Your task to perform on an android device: clear all cookies in the chrome app Image 0: 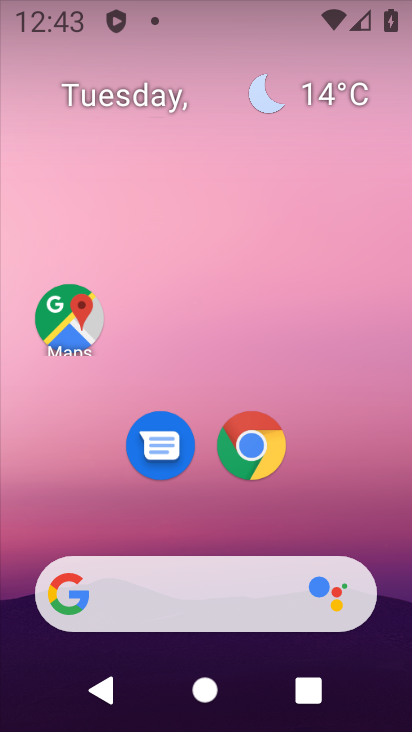
Step 0: drag from (368, 529) to (272, 29)
Your task to perform on an android device: clear all cookies in the chrome app Image 1: 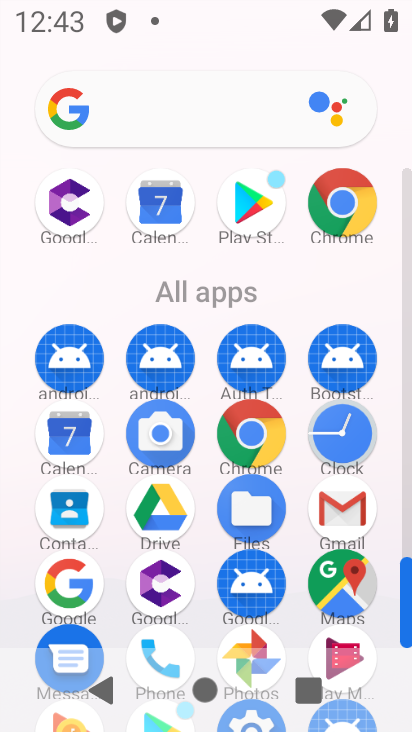
Step 1: drag from (15, 578) to (7, 264)
Your task to perform on an android device: clear all cookies in the chrome app Image 2: 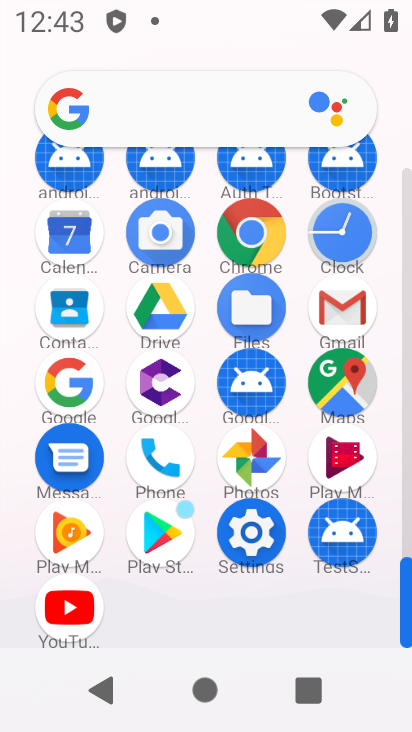
Step 2: click (251, 223)
Your task to perform on an android device: clear all cookies in the chrome app Image 3: 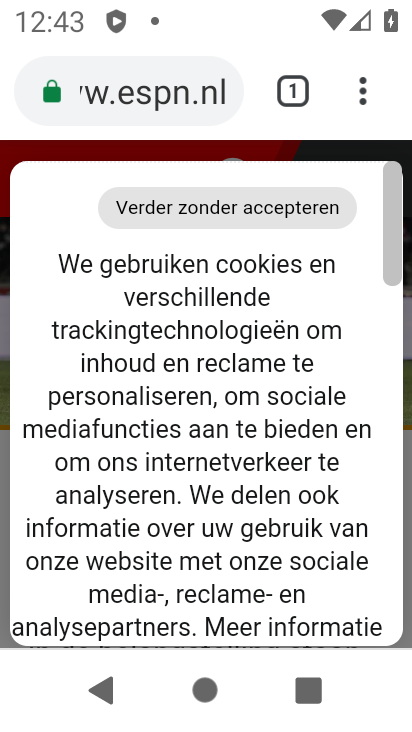
Step 3: drag from (360, 92) to (195, 506)
Your task to perform on an android device: clear all cookies in the chrome app Image 4: 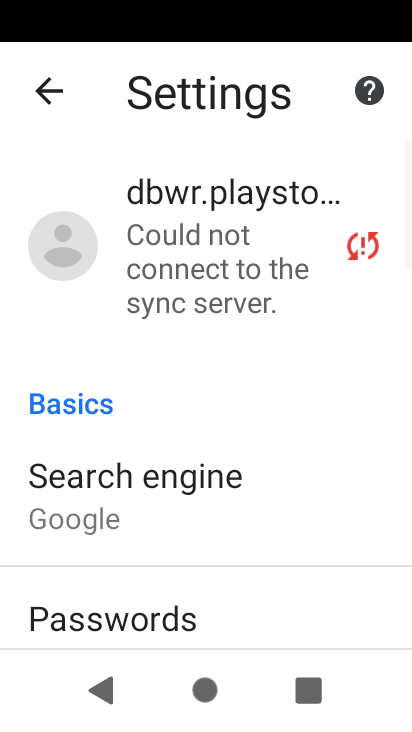
Step 4: drag from (227, 551) to (245, 194)
Your task to perform on an android device: clear all cookies in the chrome app Image 5: 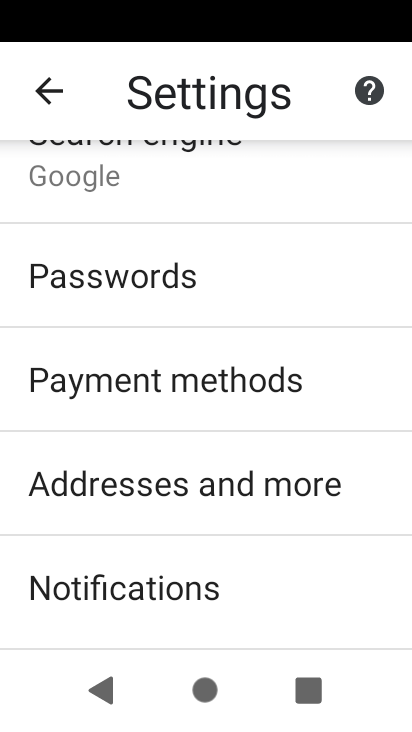
Step 5: drag from (186, 616) to (230, 198)
Your task to perform on an android device: clear all cookies in the chrome app Image 6: 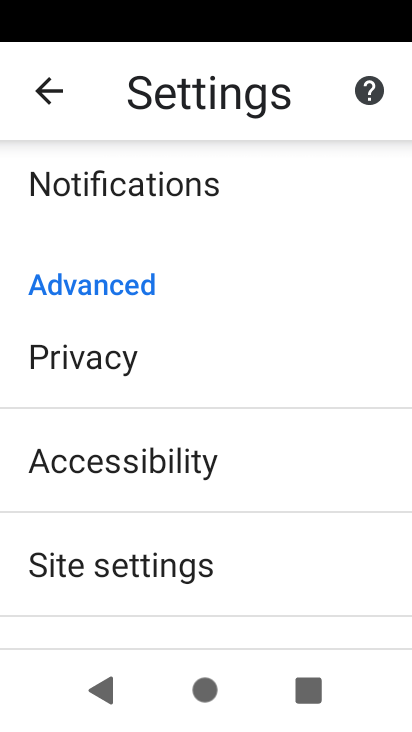
Step 6: click (176, 362)
Your task to perform on an android device: clear all cookies in the chrome app Image 7: 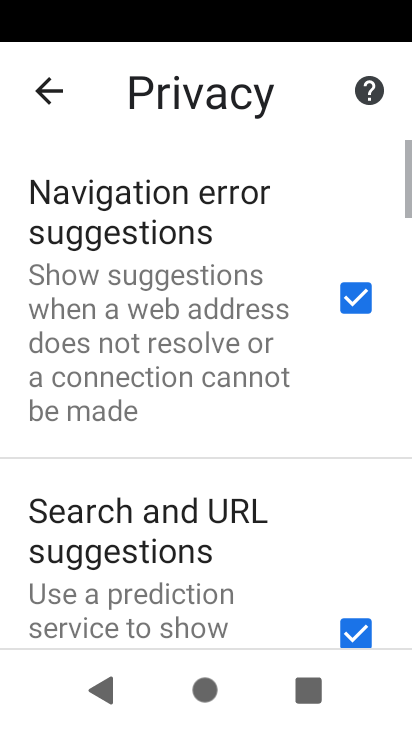
Step 7: drag from (184, 583) to (218, 153)
Your task to perform on an android device: clear all cookies in the chrome app Image 8: 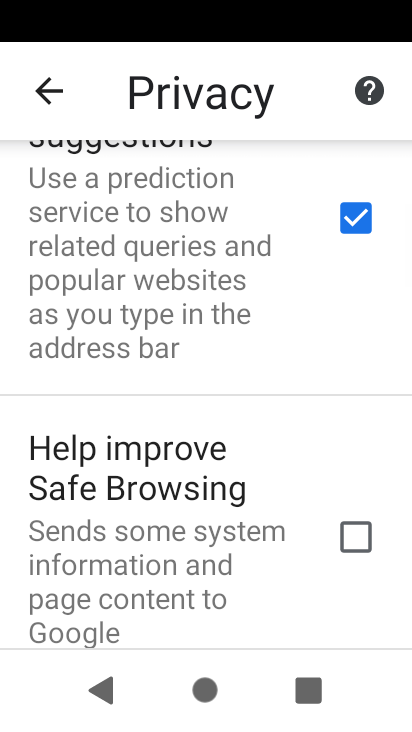
Step 8: drag from (225, 530) to (222, 178)
Your task to perform on an android device: clear all cookies in the chrome app Image 9: 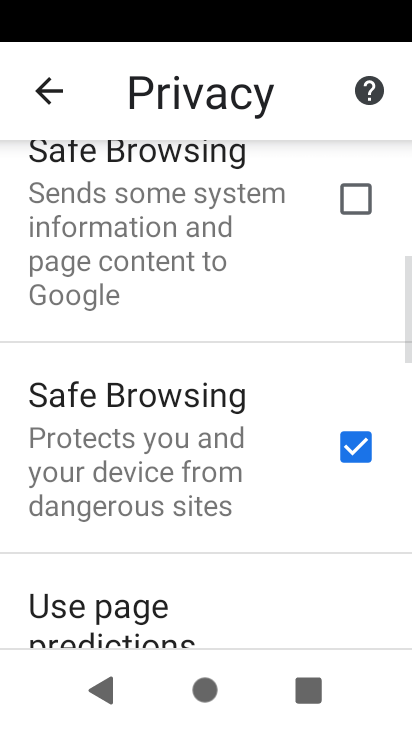
Step 9: drag from (202, 604) to (212, 167)
Your task to perform on an android device: clear all cookies in the chrome app Image 10: 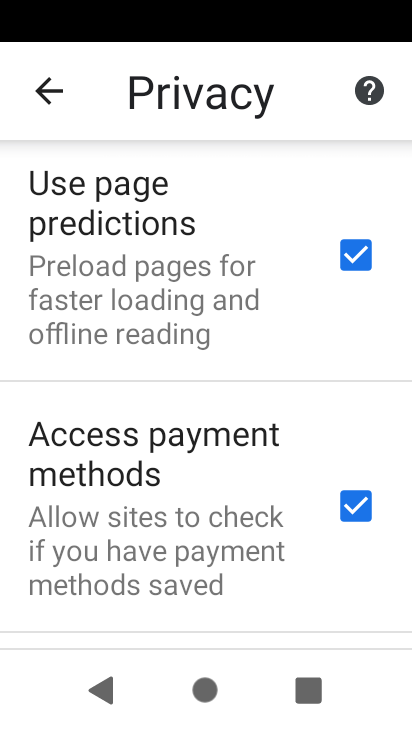
Step 10: drag from (172, 582) to (191, 149)
Your task to perform on an android device: clear all cookies in the chrome app Image 11: 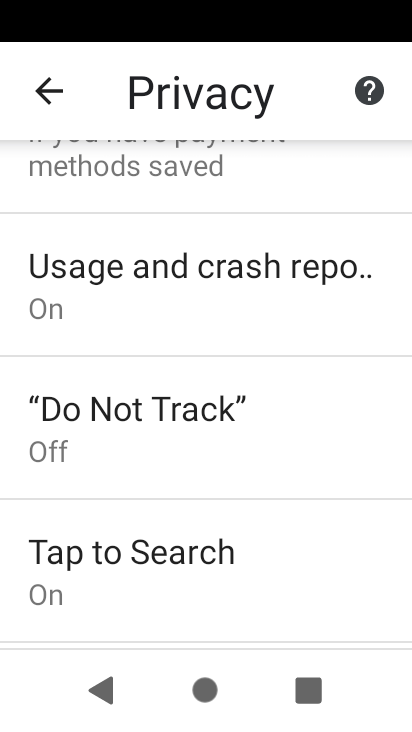
Step 11: drag from (195, 571) to (258, 197)
Your task to perform on an android device: clear all cookies in the chrome app Image 12: 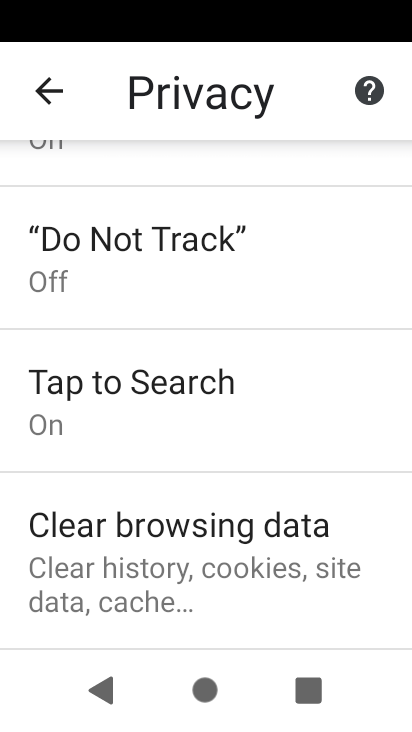
Step 12: click (188, 587)
Your task to perform on an android device: clear all cookies in the chrome app Image 13: 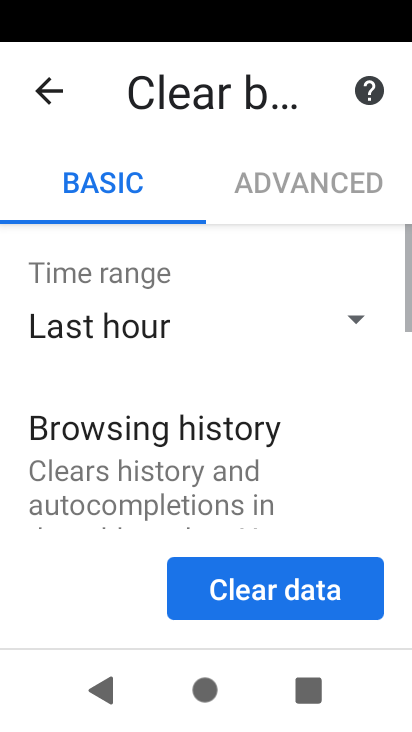
Step 13: drag from (104, 498) to (151, 289)
Your task to perform on an android device: clear all cookies in the chrome app Image 14: 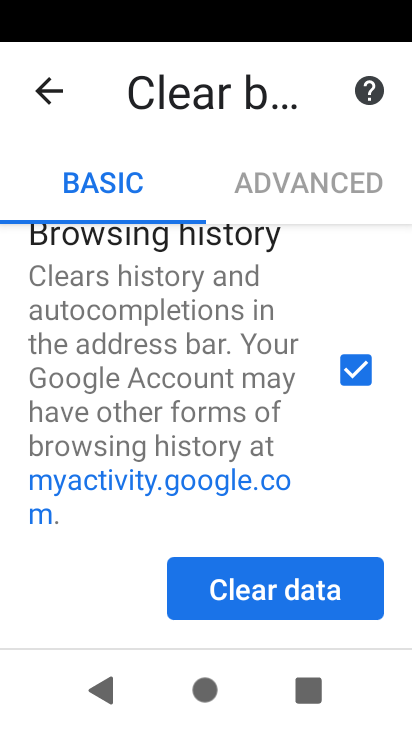
Step 14: drag from (131, 504) to (166, 210)
Your task to perform on an android device: clear all cookies in the chrome app Image 15: 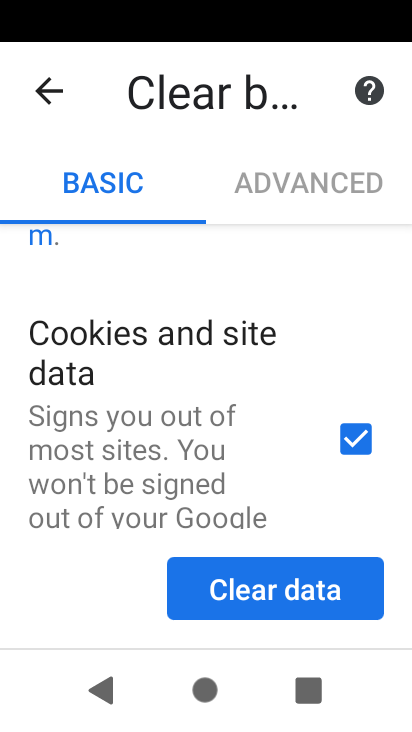
Step 15: drag from (180, 483) to (210, 224)
Your task to perform on an android device: clear all cookies in the chrome app Image 16: 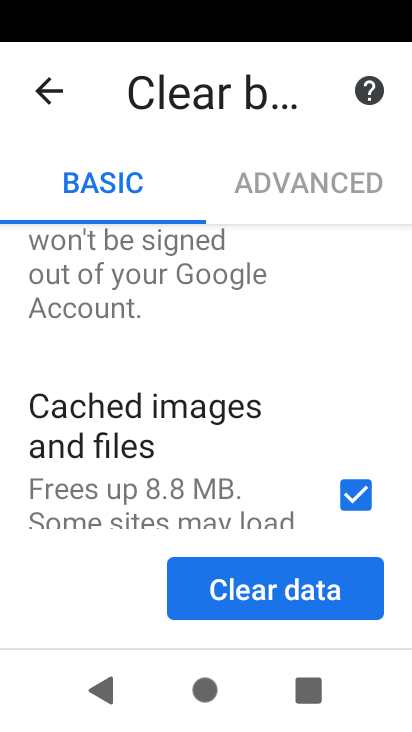
Step 16: click (273, 565)
Your task to perform on an android device: clear all cookies in the chrome app Image 17: 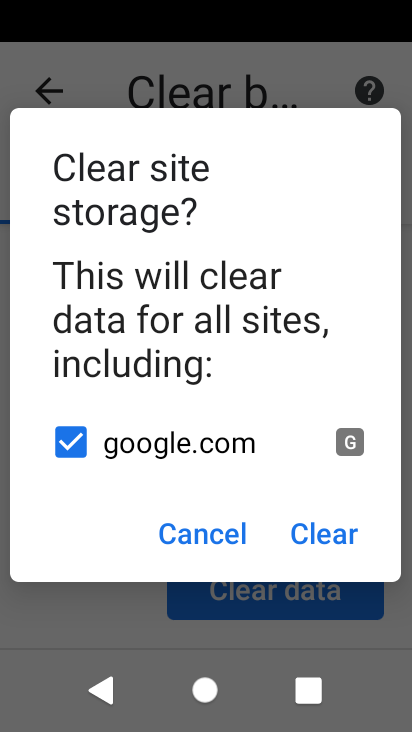
Step 17: click (291, 523)
Your task to perform on an android device: clear all cookies in the chrome app Image 18: 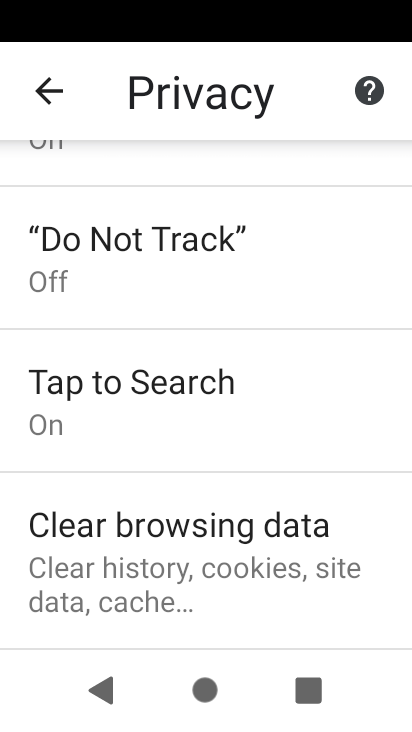
Step 18: task complete